Your task to perform on an android device: Show the shopping cart on walmart. Image 0: 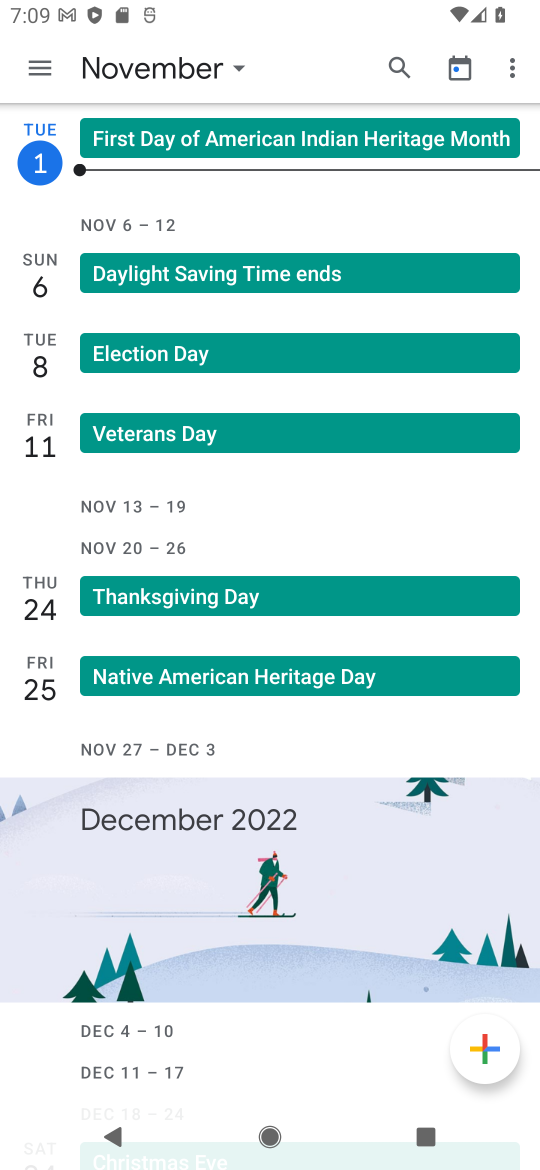
Step 0: press home button
Your task to perform on an android device: Show the shopping cart on walmart. Image 1: 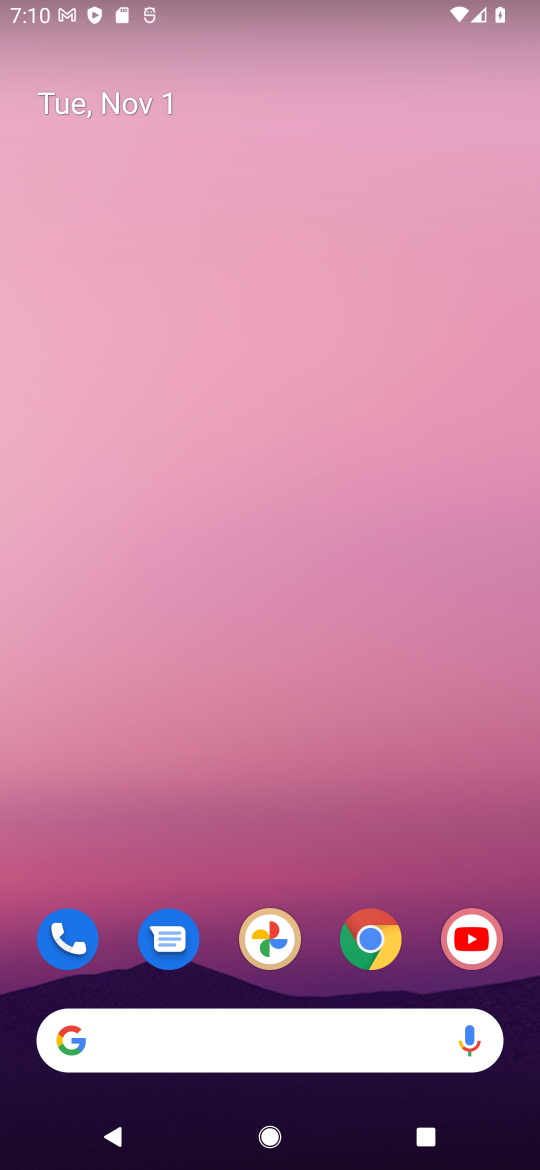
Step 1: drag from (238, 749) to (195, 149)
Your task to perform on an android device: Show the shopping cart on walmart. Image 2: 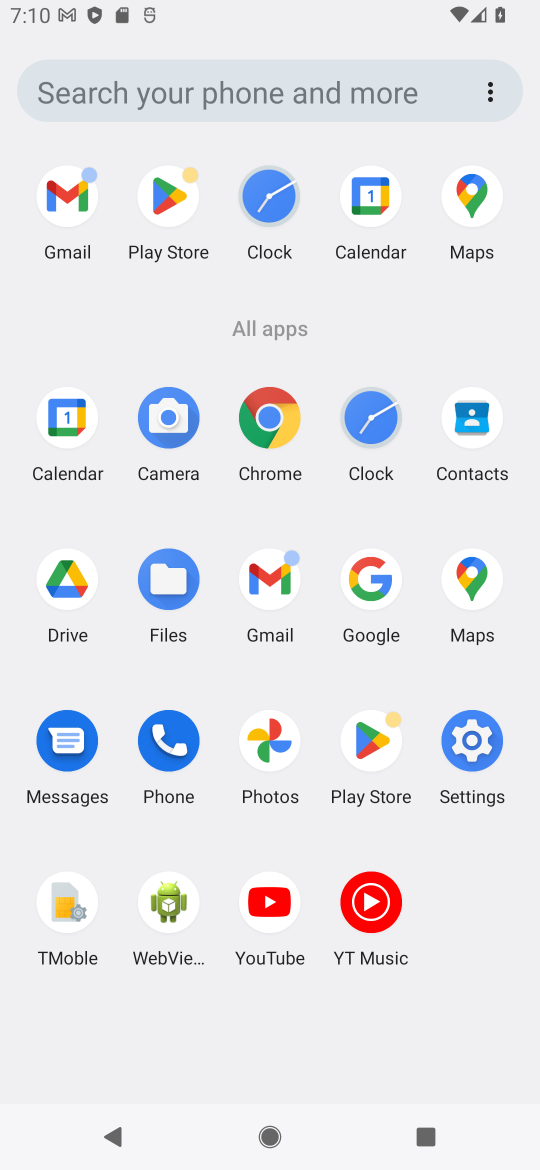
Step 2: click (271, 430)
Your task to perform on an android device: Show the shopping cart on walmart. Image 3: 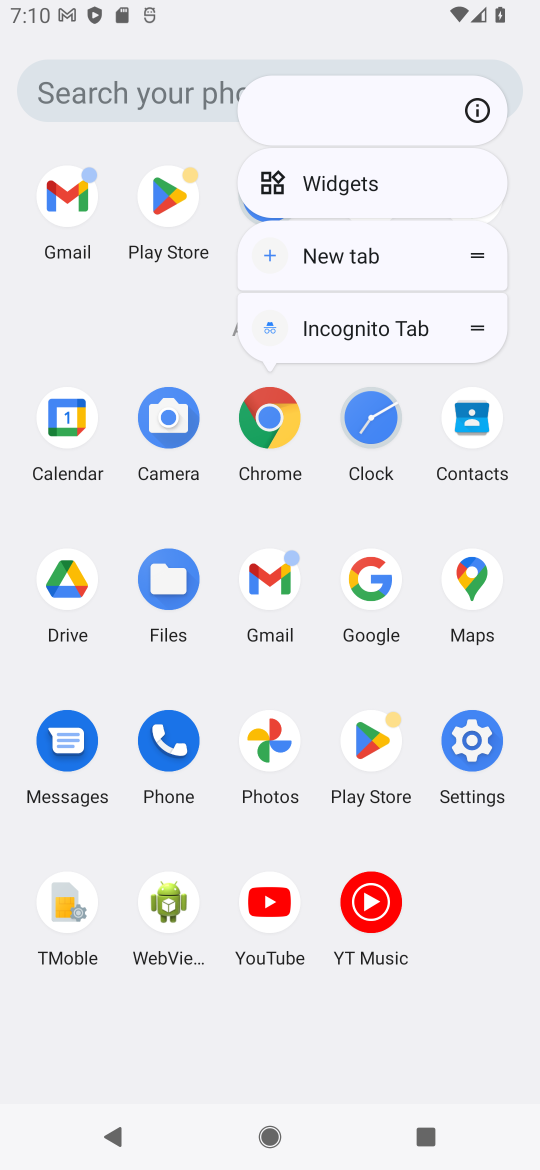
Step 3: click (272, 430)
Your task to perform on an android device: Show the shopping cart on walmart. Image 4: 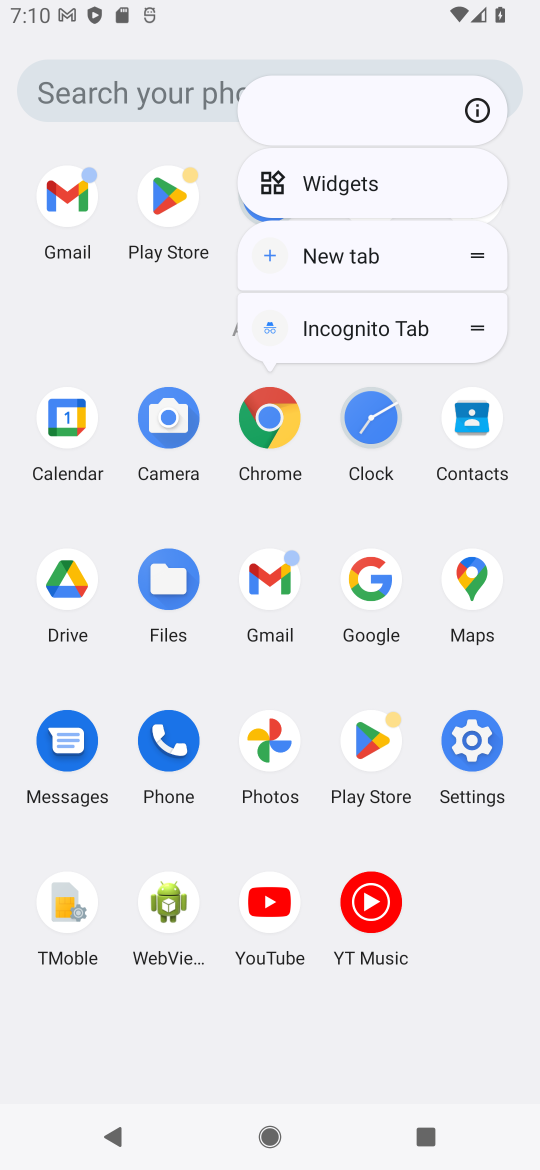
Step 4: click (272, 430)
Your task to perform on an android device: Show the shopping cart on walmart. Image 5: 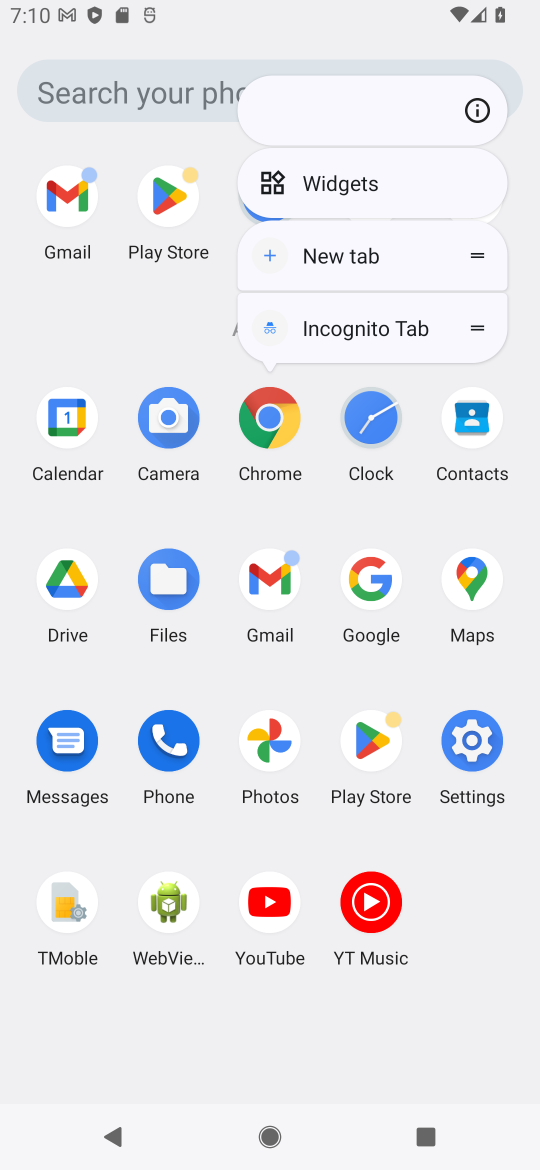
Step 5: click (272, 430)
Your task to perform on an android device: Show the shopping cart on walmart. Image 6: 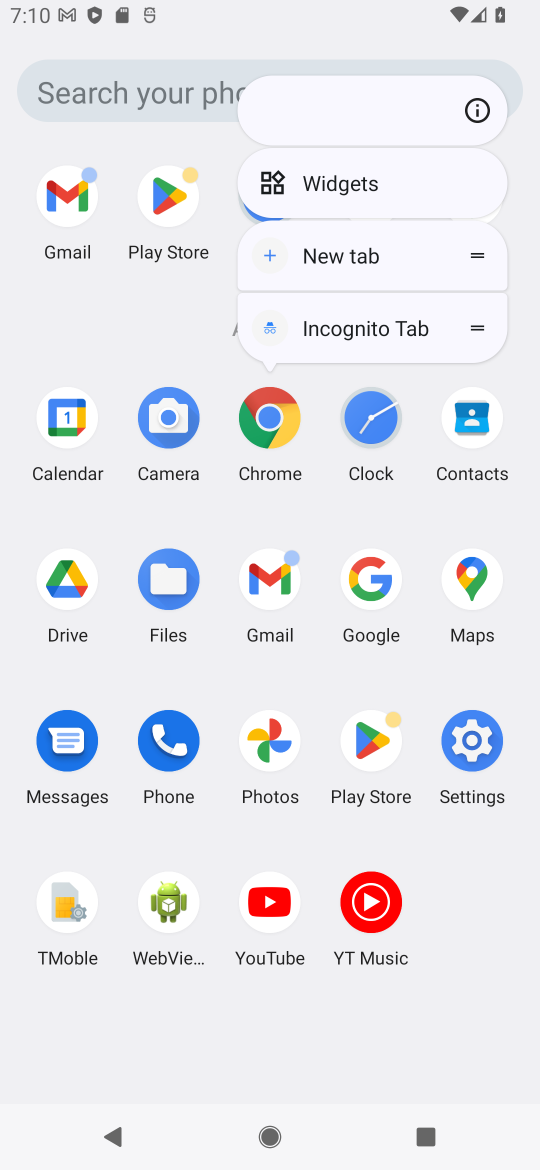
Step 6: click (272, 429)
Your task to perform on an android device: Show the shopping cart on walmart. Image 7: 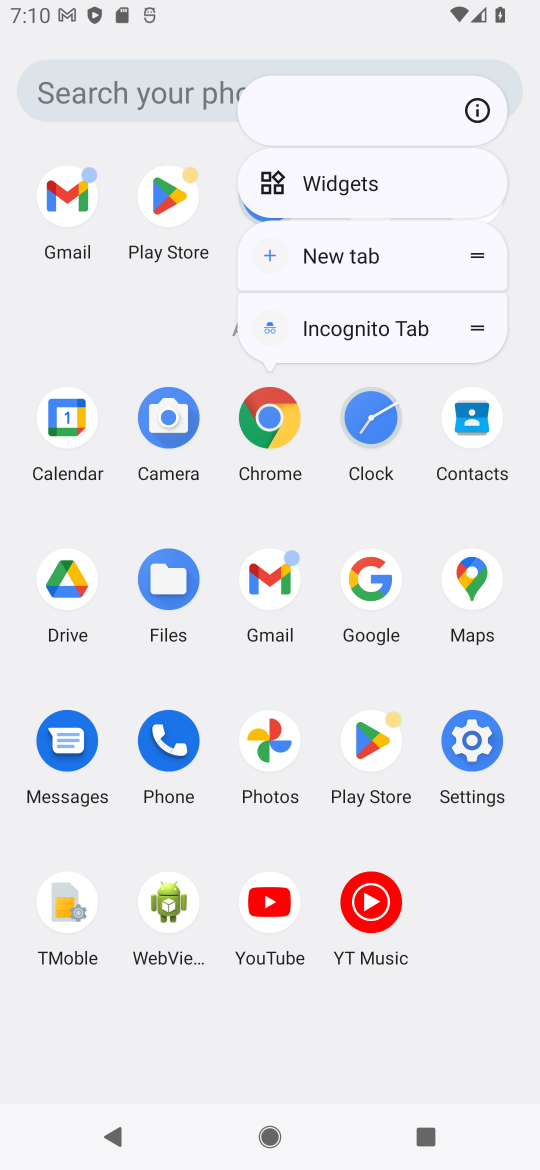
Step 7: click (272, 429)
Your task to perform on an android device: Show the shopping cart on walmart. Image 8: 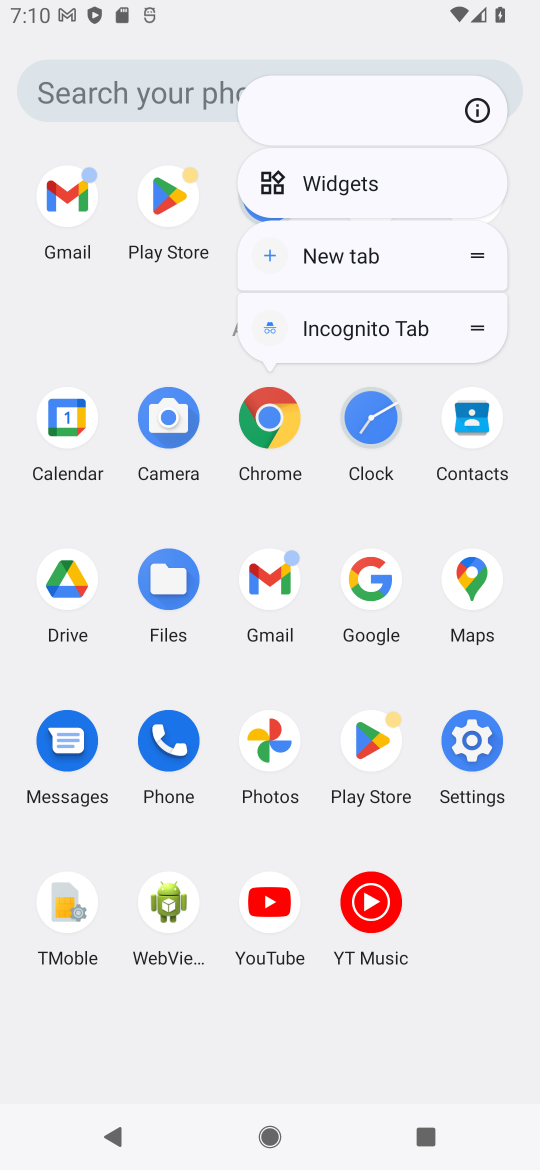
Step 8: click (272, 429)
Your task to perform on an android device: Show the shopping cart on walmart. Image 9: 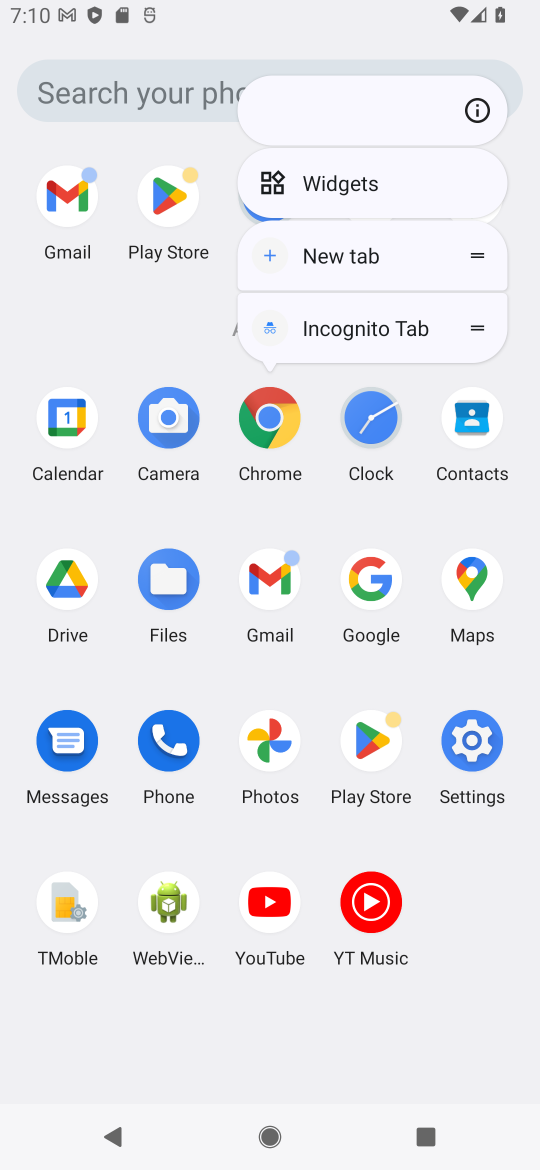
Step 9: click (272, 429)
Your task to perform on an android device: Show the shopping cart on walmart. Image 10: 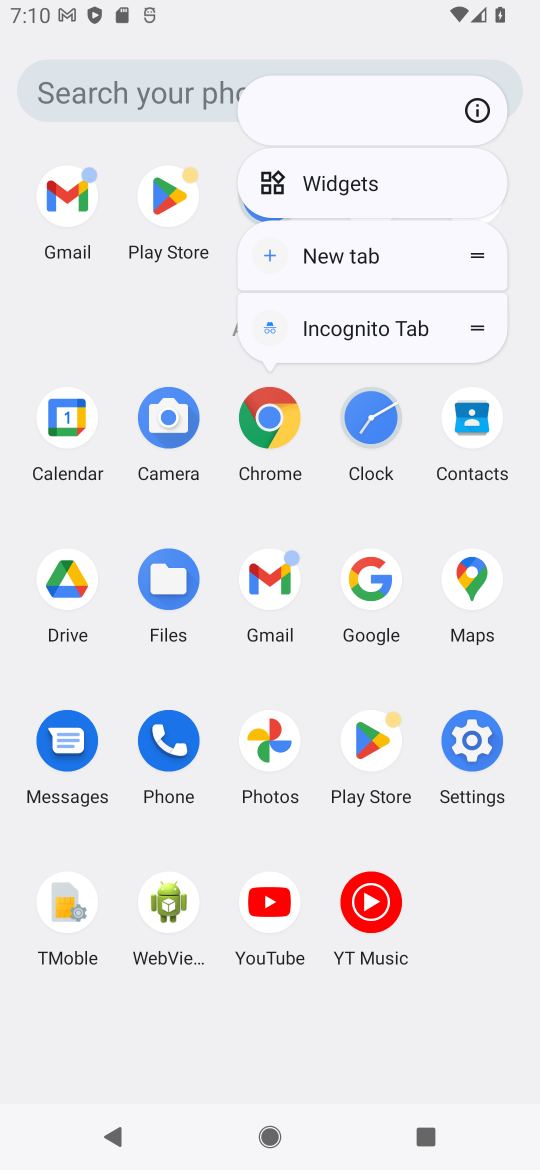
Step 10: click (272, 429)
Your task to perform on an android device: Show the shopping cart on walmart. Image 11: 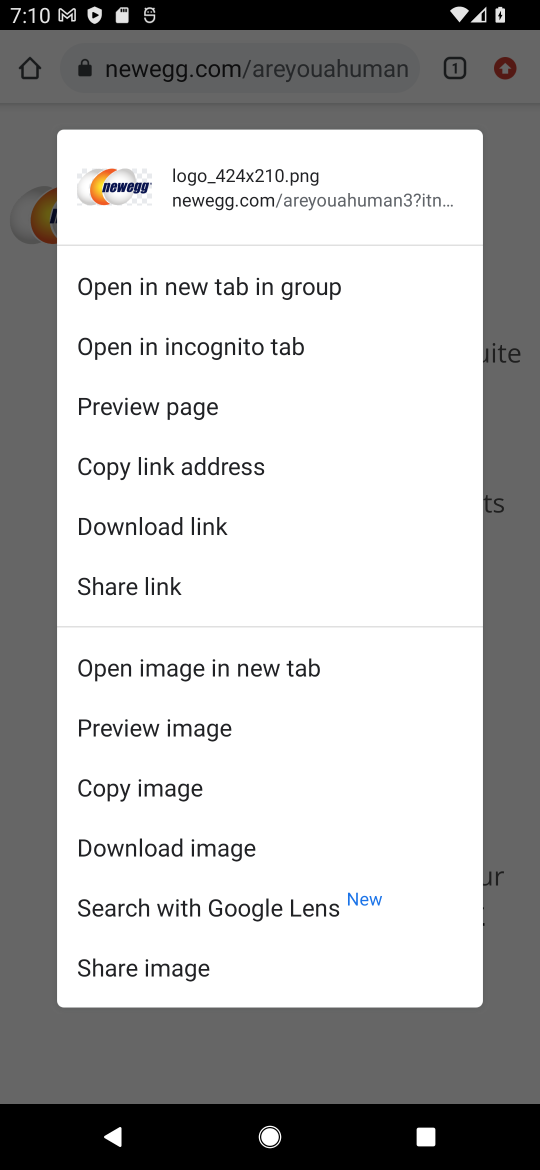
Step 11: click (167, 61)
Your task to perform on an android device: Show the shopping cart on walmart. Image 12: 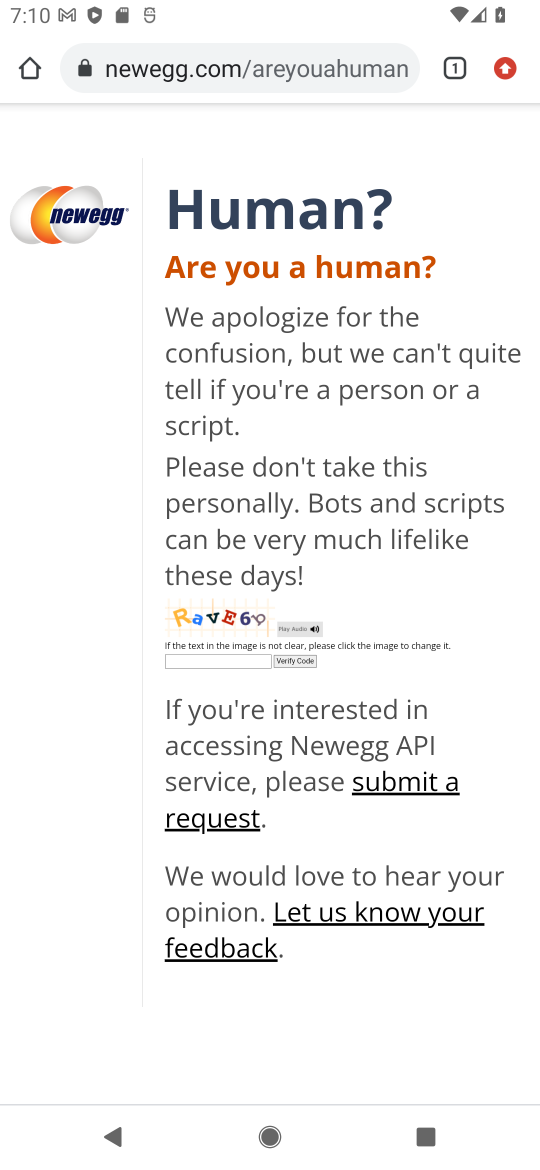
Step 12: click (167, 61)
Your task to perform on an android device: Show the shopping cart on walmart. Image 13: 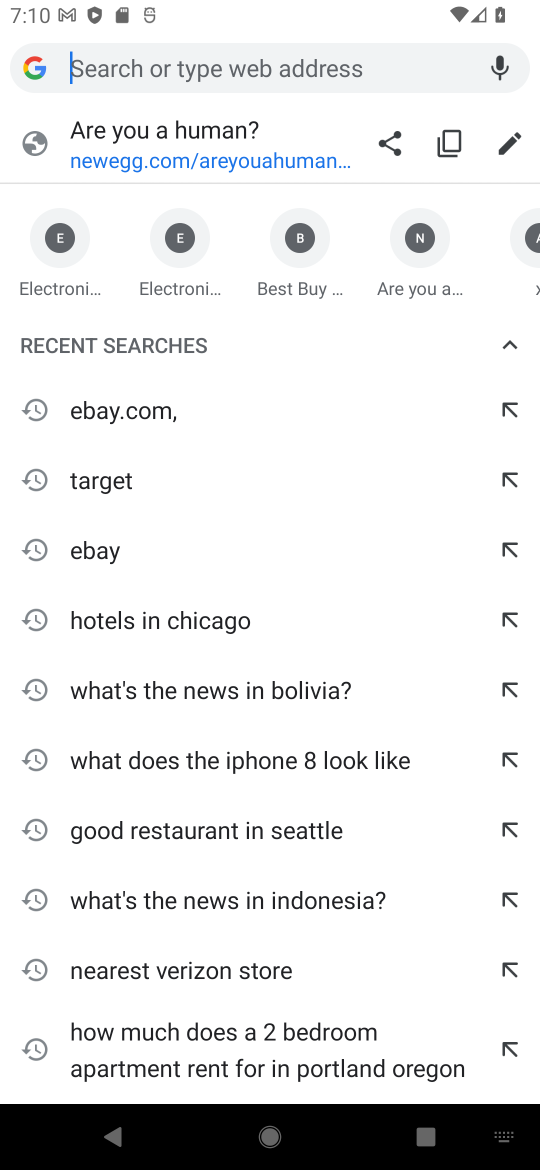
Step 13: type "walmart"
Your task to perform on an android device: Show the shopping cart on walmart. Image 14: 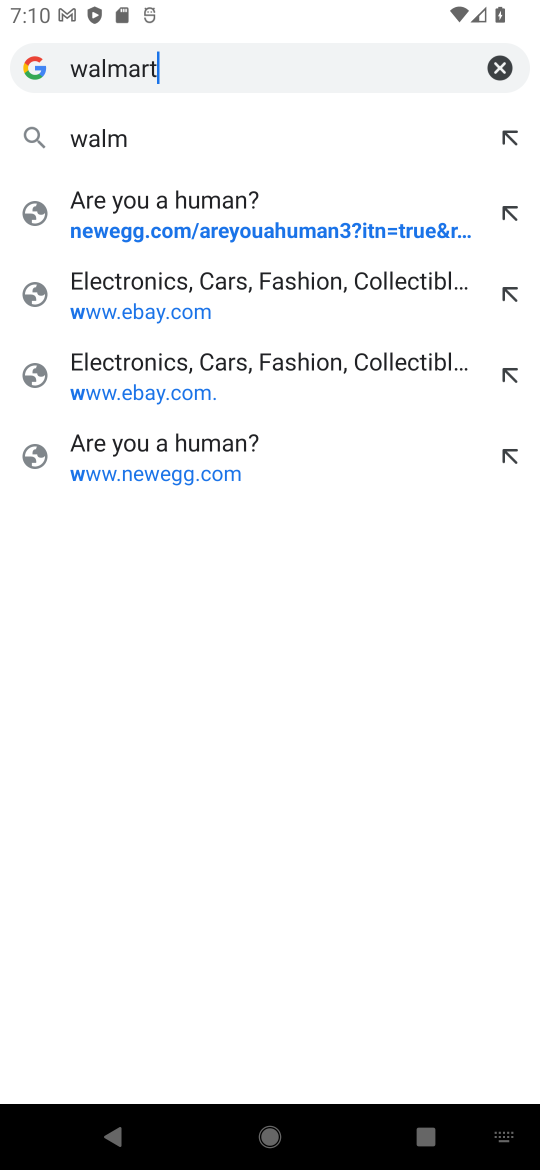
Step 14: press enter
Your task to perform on an android device: Show the shopping cart on walmart. Image 15: 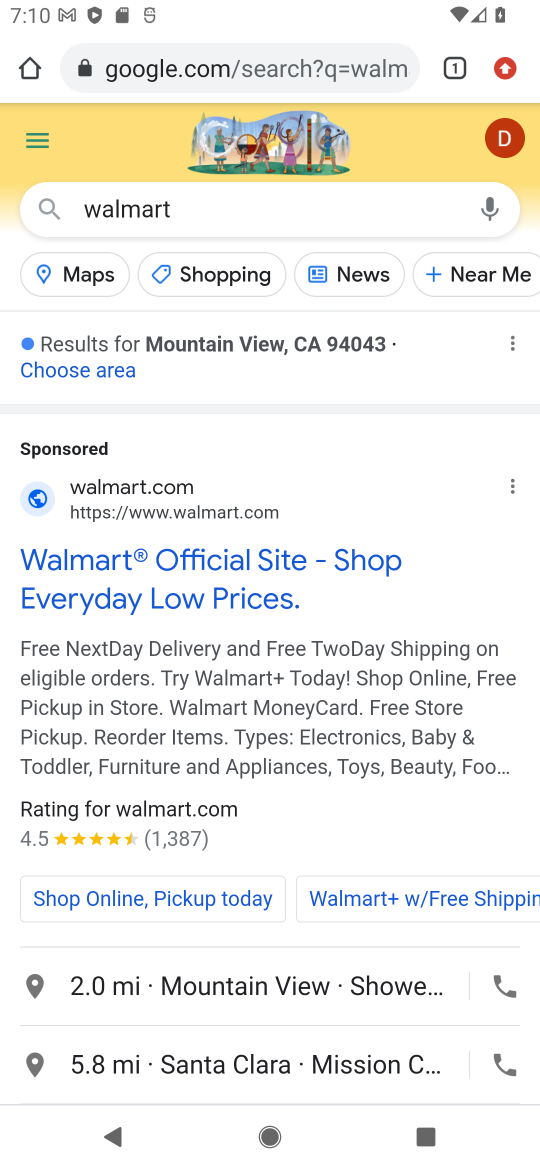
Step 15: click (203, 498)
Your task to perform on an android device: Show the shopping cart on walmart. Image 16: 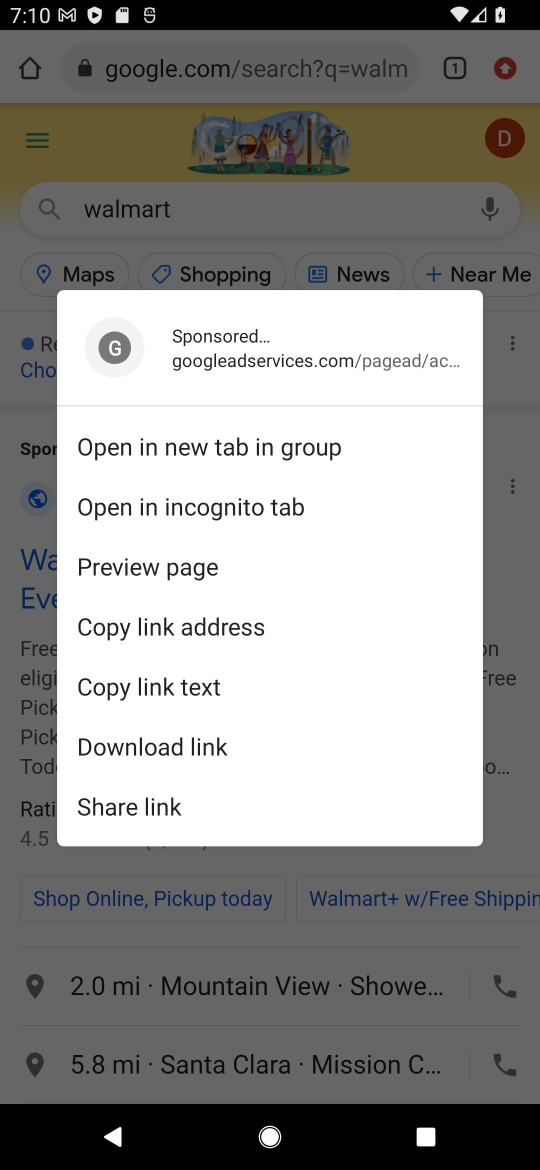
Step 16: click (10, 189)
Your task to perform on an android device: Show the shopping cart on walmart. Image 17: 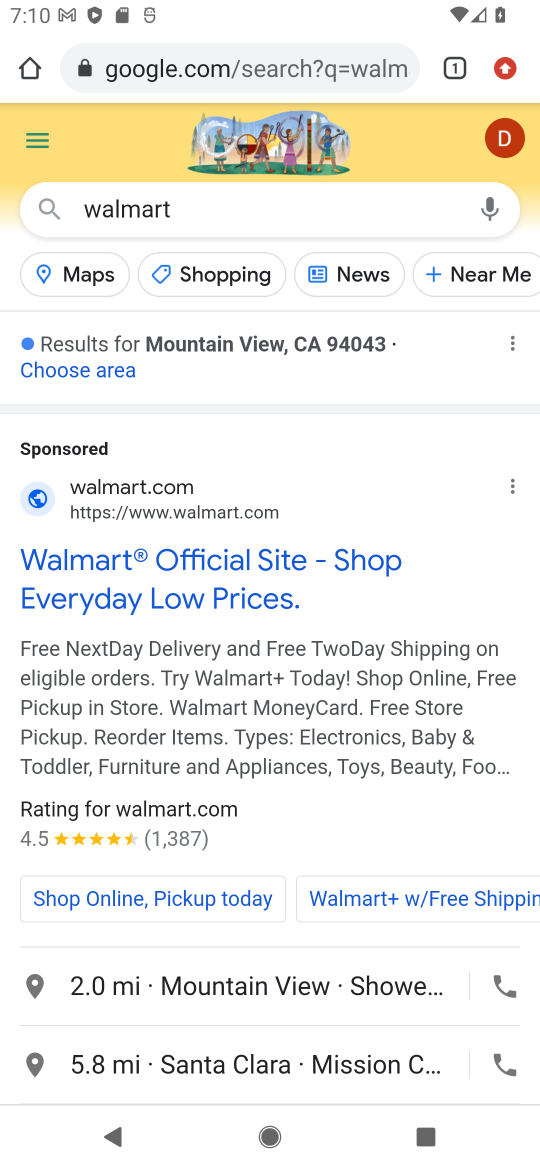
Step 17: click (69, 519)
Your task to perform on an android device: Show the shopping cart on walmart. Image 18: 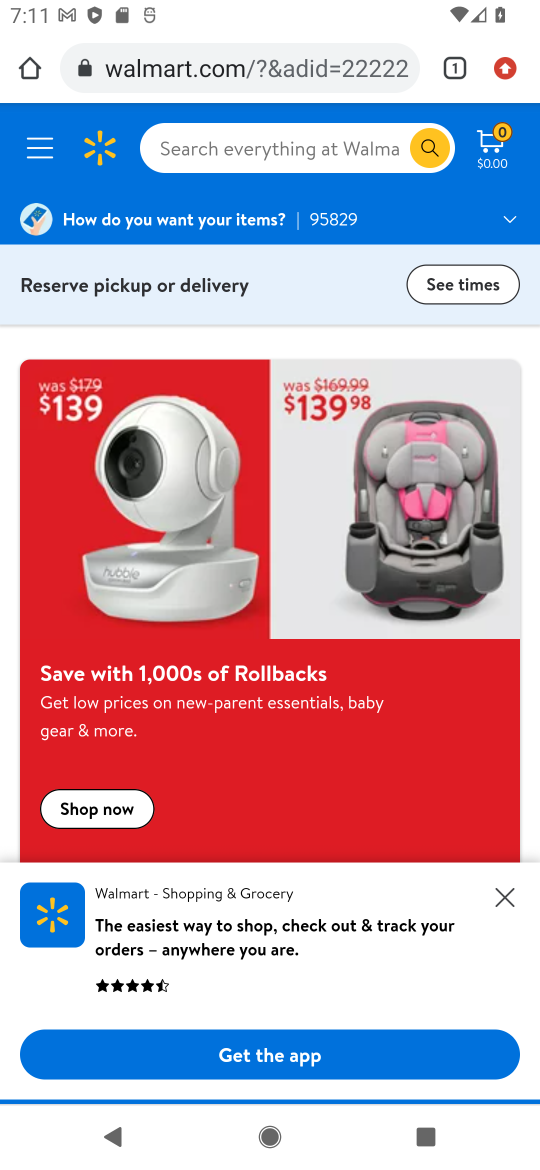
Step 18: click (488, 155)
Your task to perform on an android device: Show the shopping cart on walmart. Image 19: 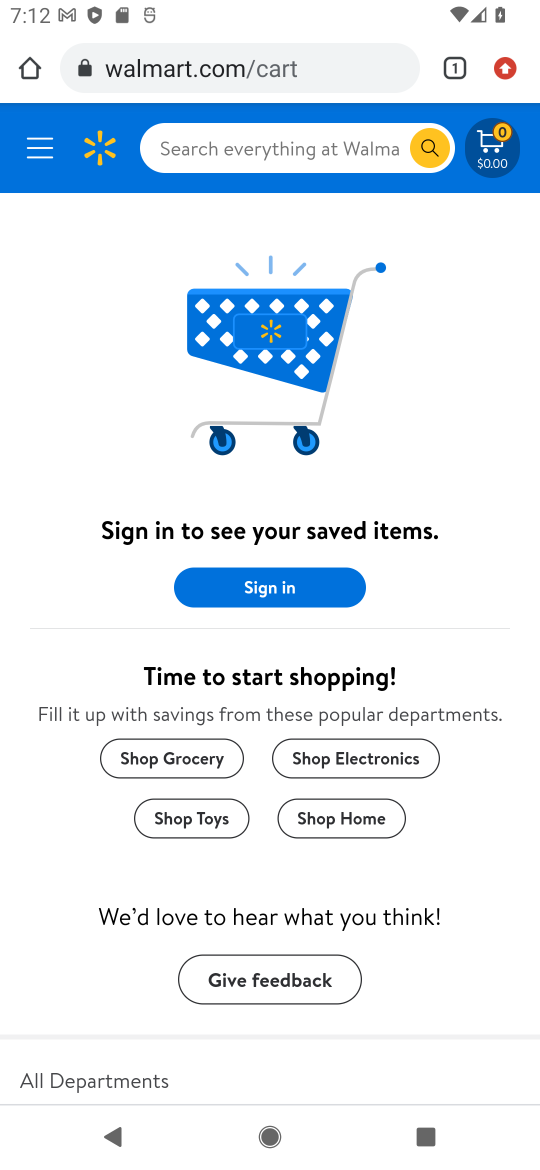
Step 19: task complete